Your task to perform on an android device: Add "apple airpods" to the cart on target.com Image 0: 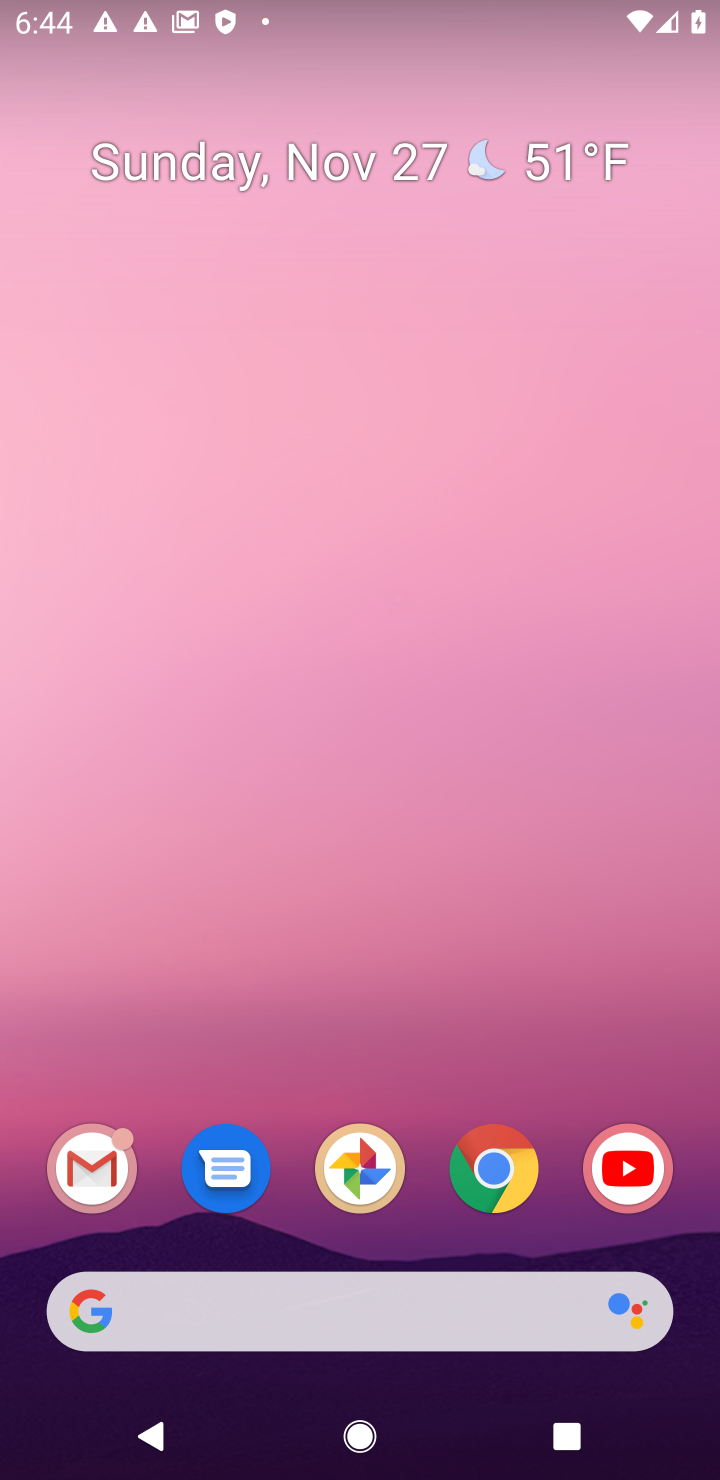
Step 0: click (493, 1166)
Your task to perform on an android device: Add "apple airpods" to the cart on target.com Image 1: 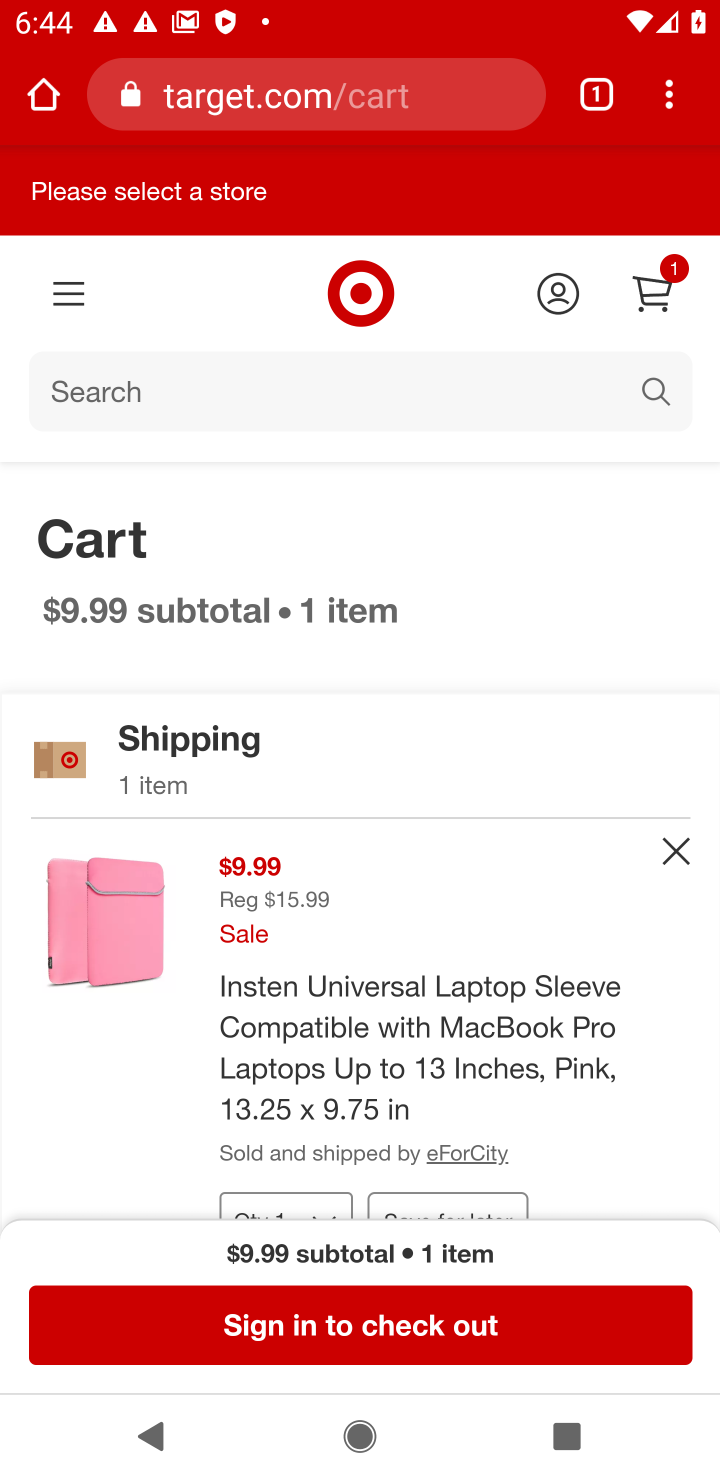
Step 1: click (425, 105)
Your task to perform on an android device: Add "apple airpods" to the cart on target.com Image 2: 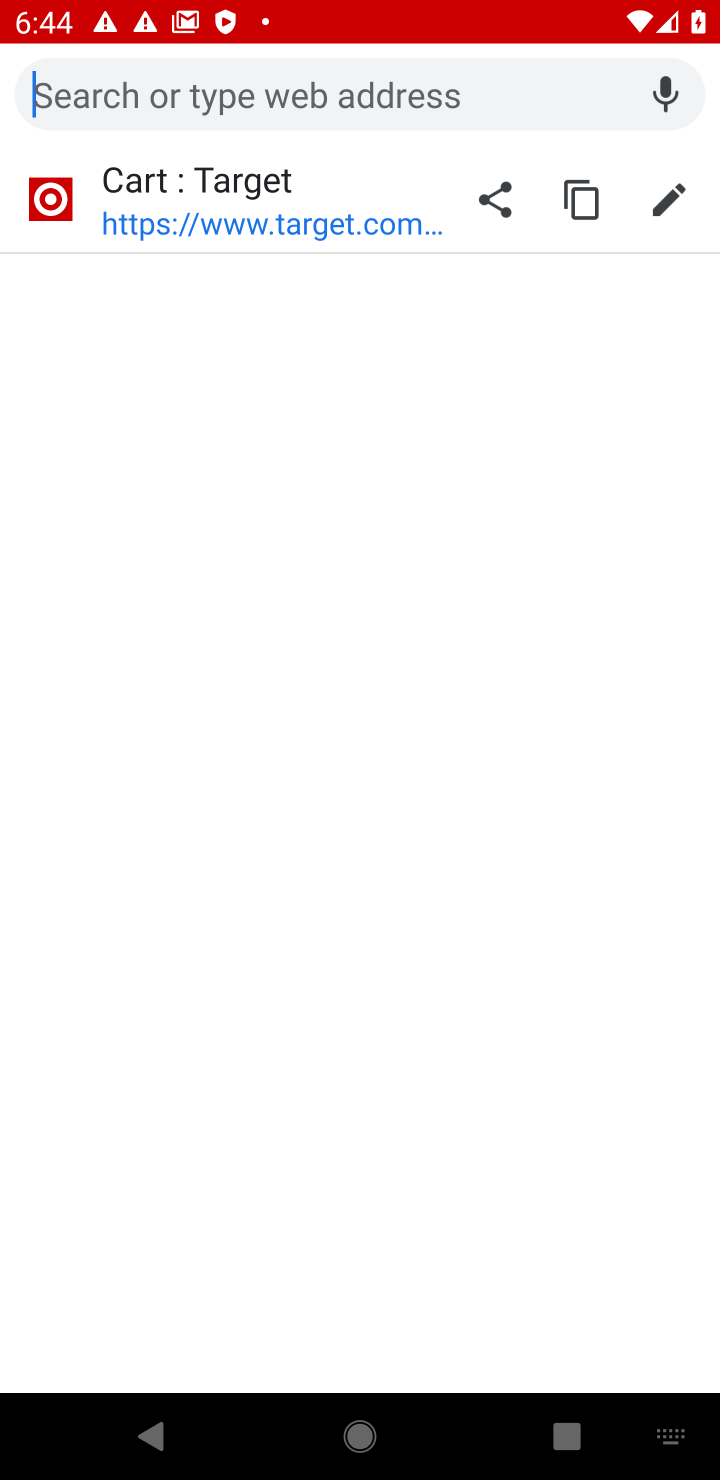
Step 2: type "target.com"
Your task to perform on an android device: Add "apple airpods" to the cart on target.com Image 3: 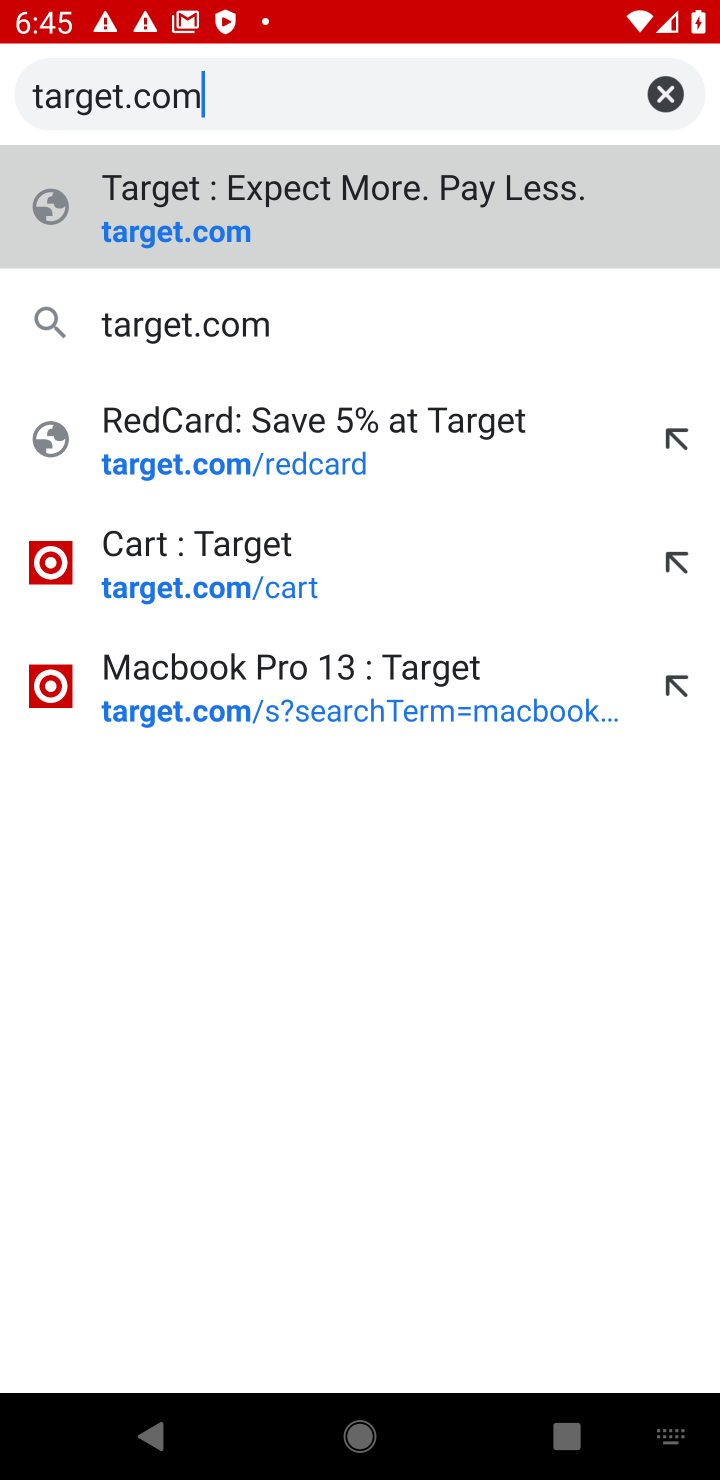
Step 3: click (148, 320)
Your task to perform on an android device: Add "apple airpods" to the cart on target.com Image 4: 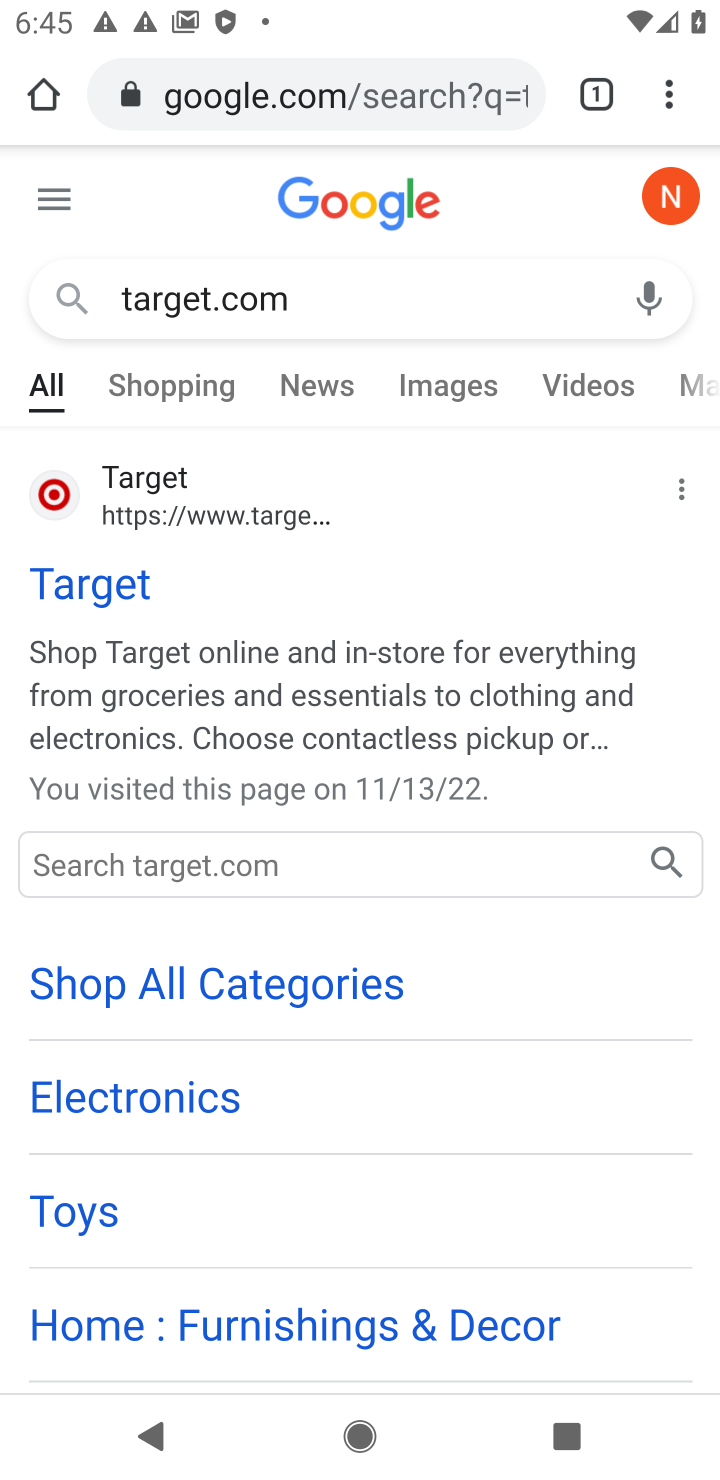
Step 4: click (210, 555)
Your task to perform on an android device: Add "apple airpods" to the cart on target.com Image 5: 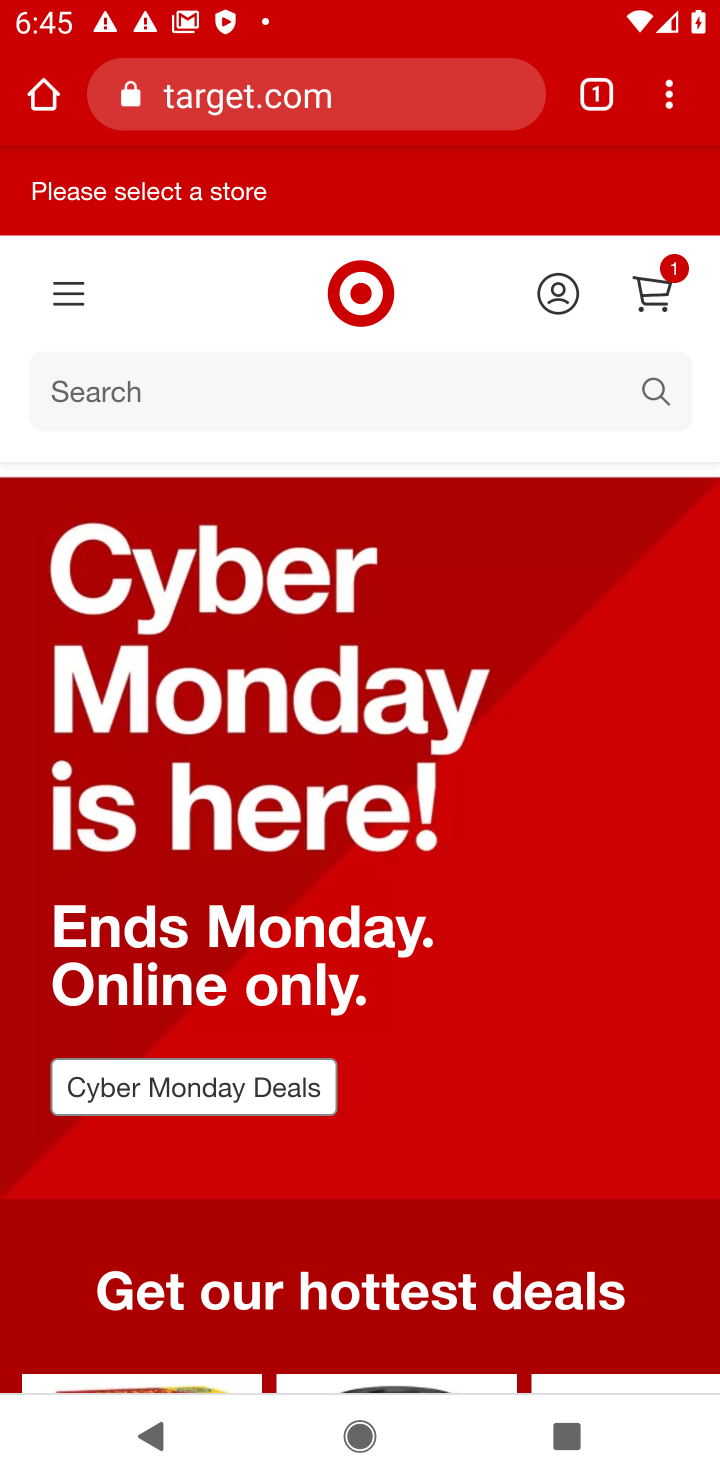
Step 5: drag from (442, 1123) to (540, 792)
Your task to perform on an android device: Add "apple airpods" to the cart on target.com Image 6: 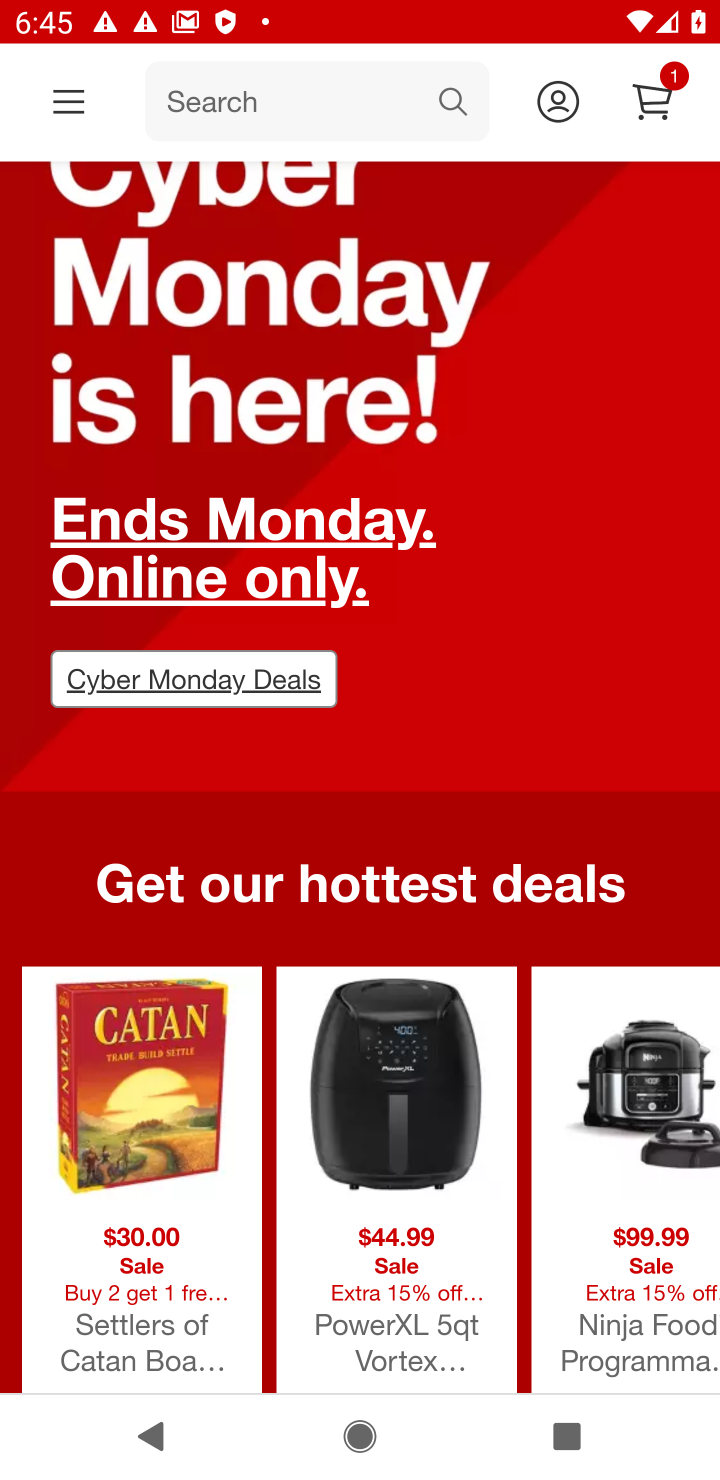
Step 6: drag from (559, 603) to (498, 934)
Your task to perform on an android device: Add "apple airpods" to the cart on target.com Image 7: 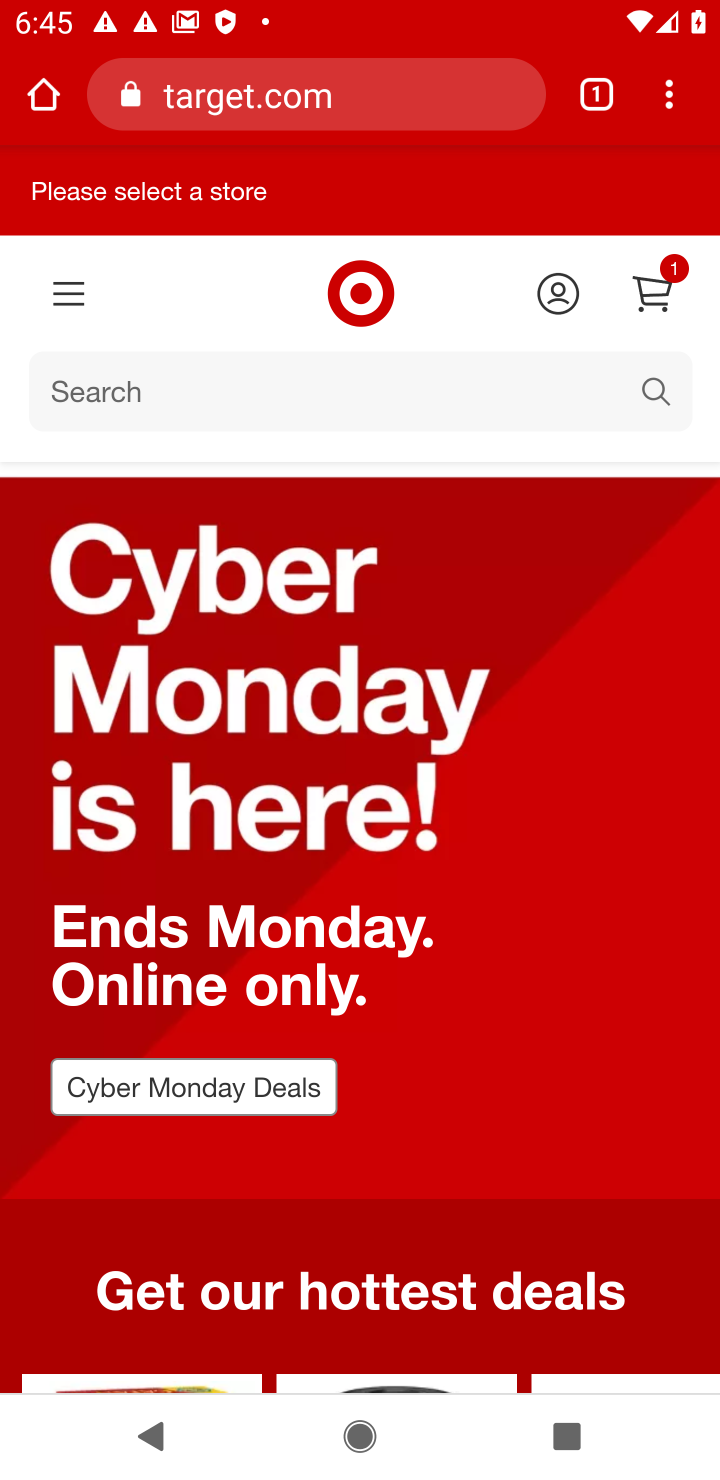
Step 7: click (457, 376)
Your task to perform on an android device: Add "apple airpods" to the cart on target.com Image 8: 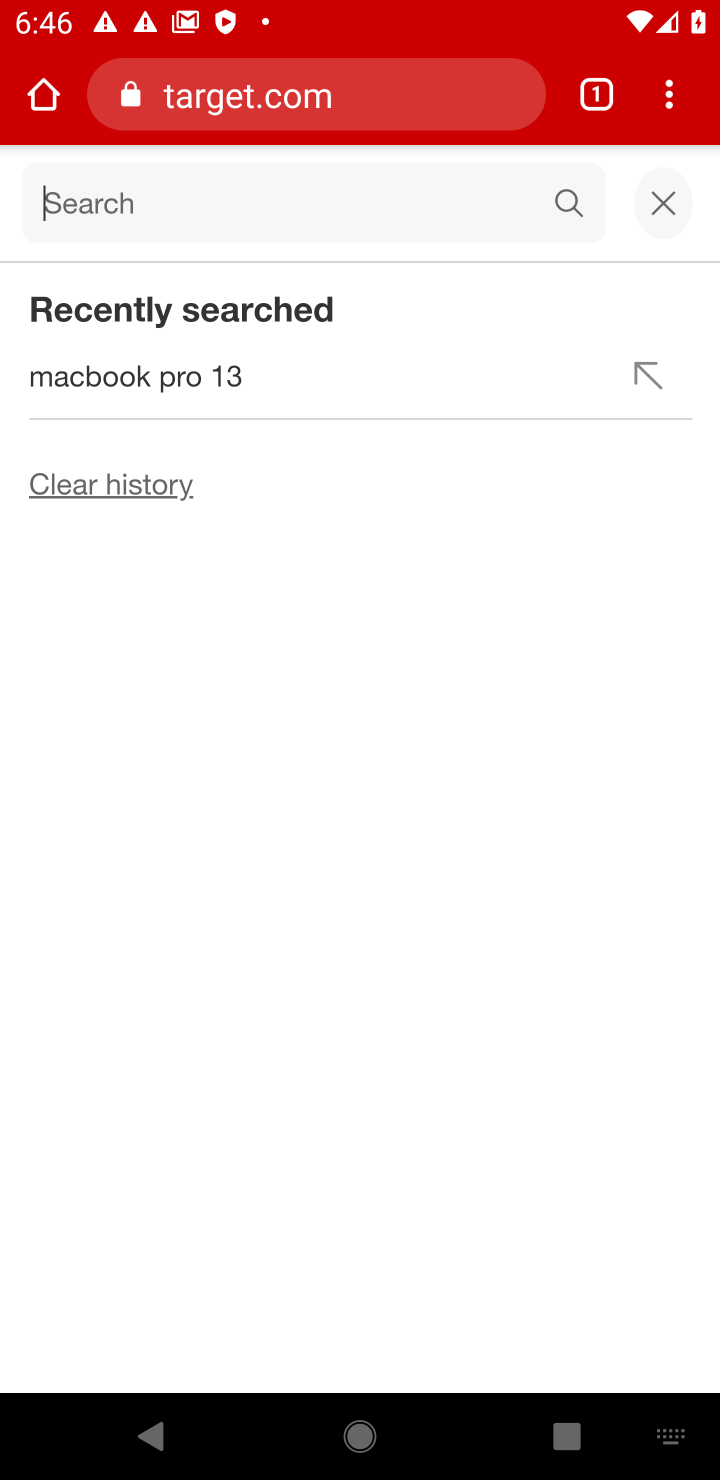
Step 8: type "apple airpods"
Your task to perform on an android device: Add "apple airpods" to the cart on target.com Image 9: 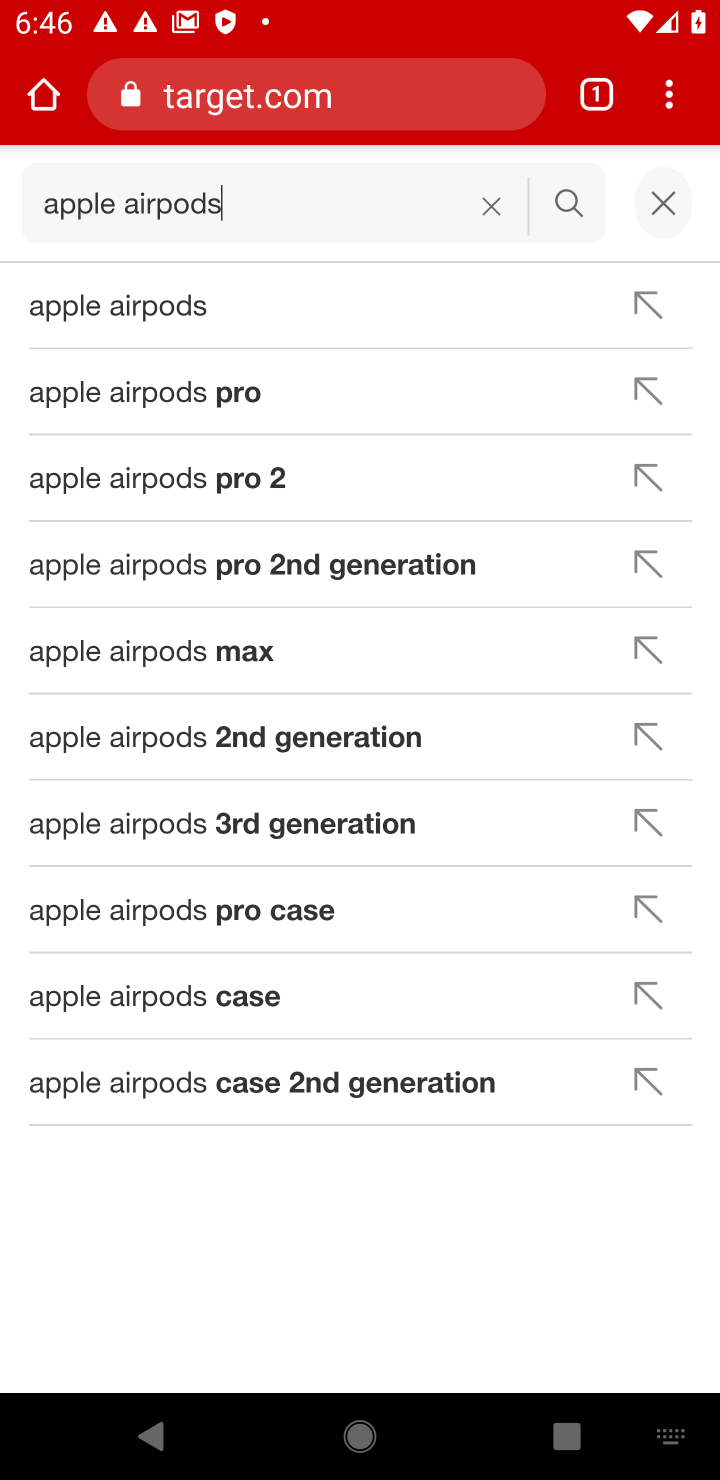
Step 9: click (188, 313)
Your task to perform on an android device: Add "apple airpods" to the cart on target.com Image 10: 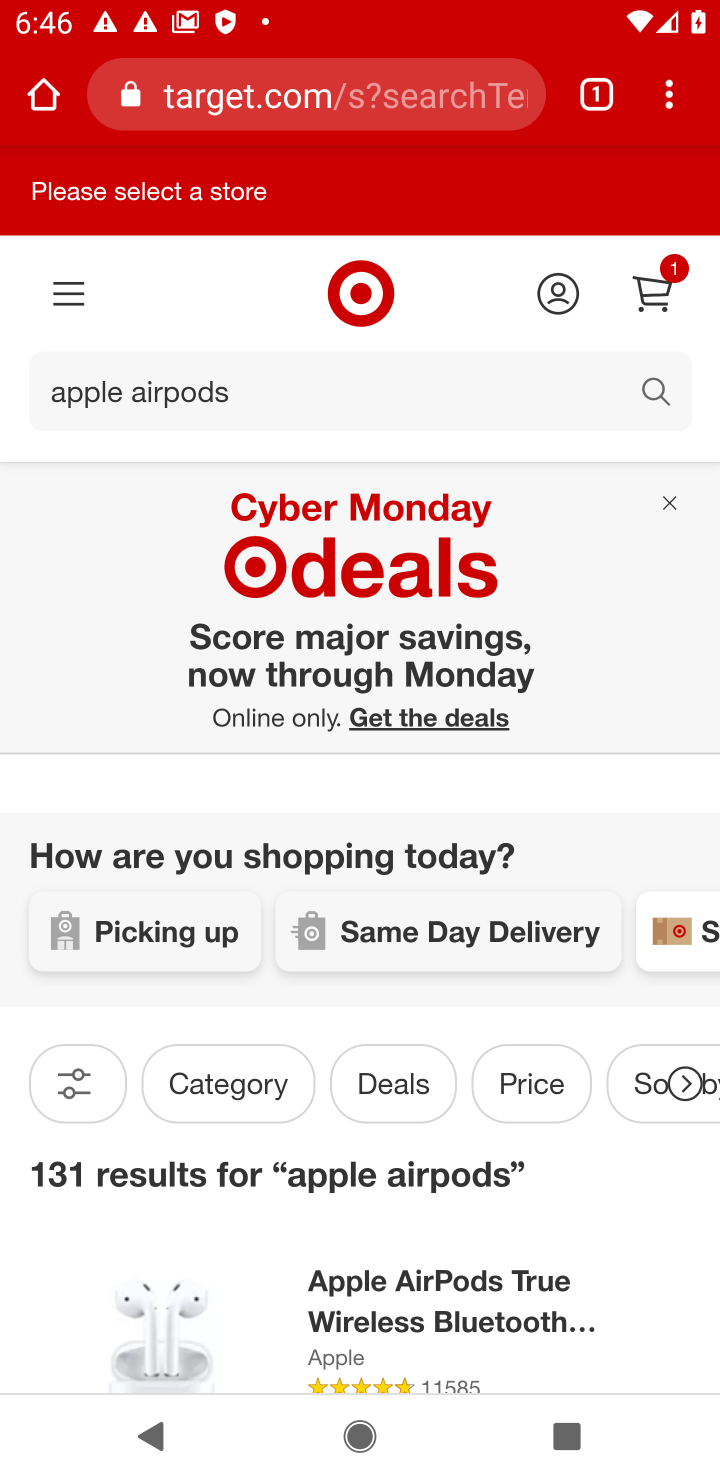
Step 10: drag from (393, 1009) to (515, 622)
Your task to perform on an android device: Add "apple airpods" to the cart on target.com Image 11: 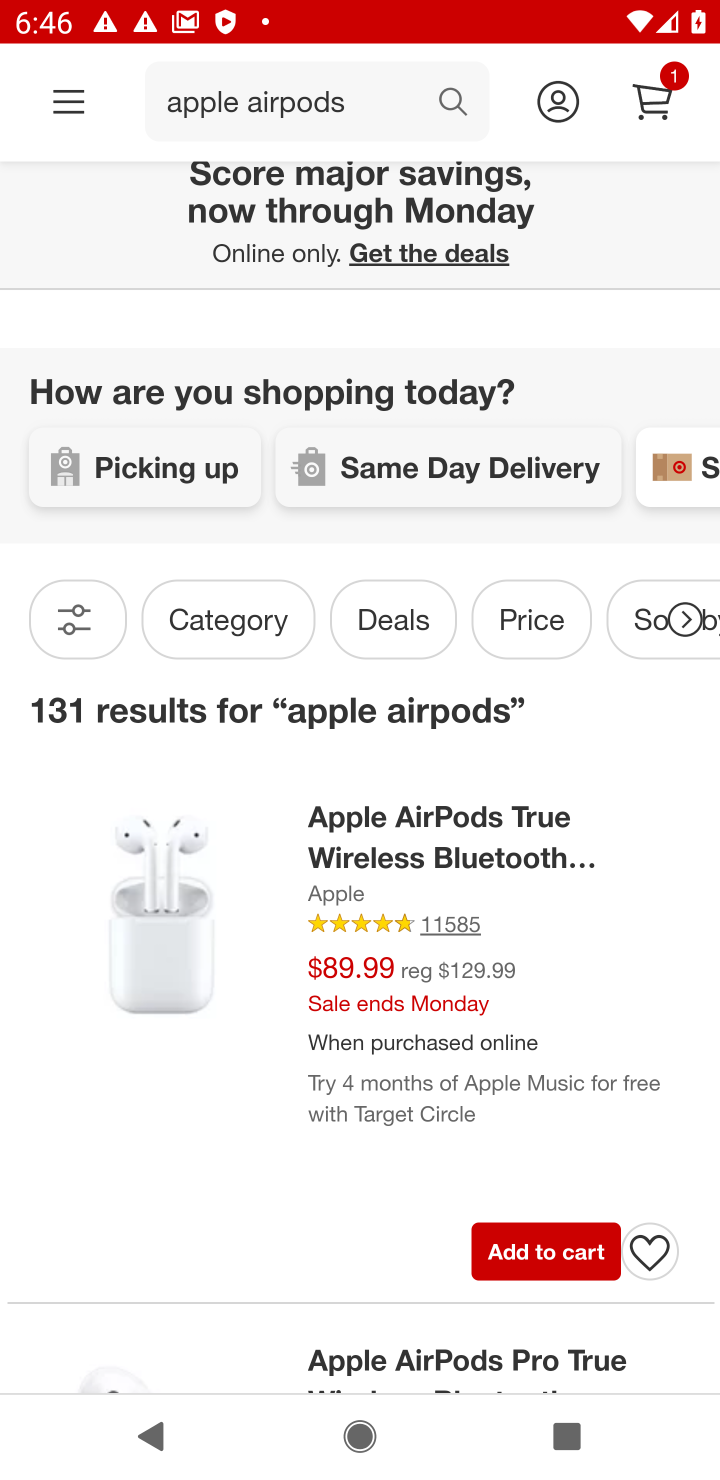
Step 11: click (548, 1252)
Your task to perform on an android device: Add "apple airpods" to the cart on target.com Image 12: 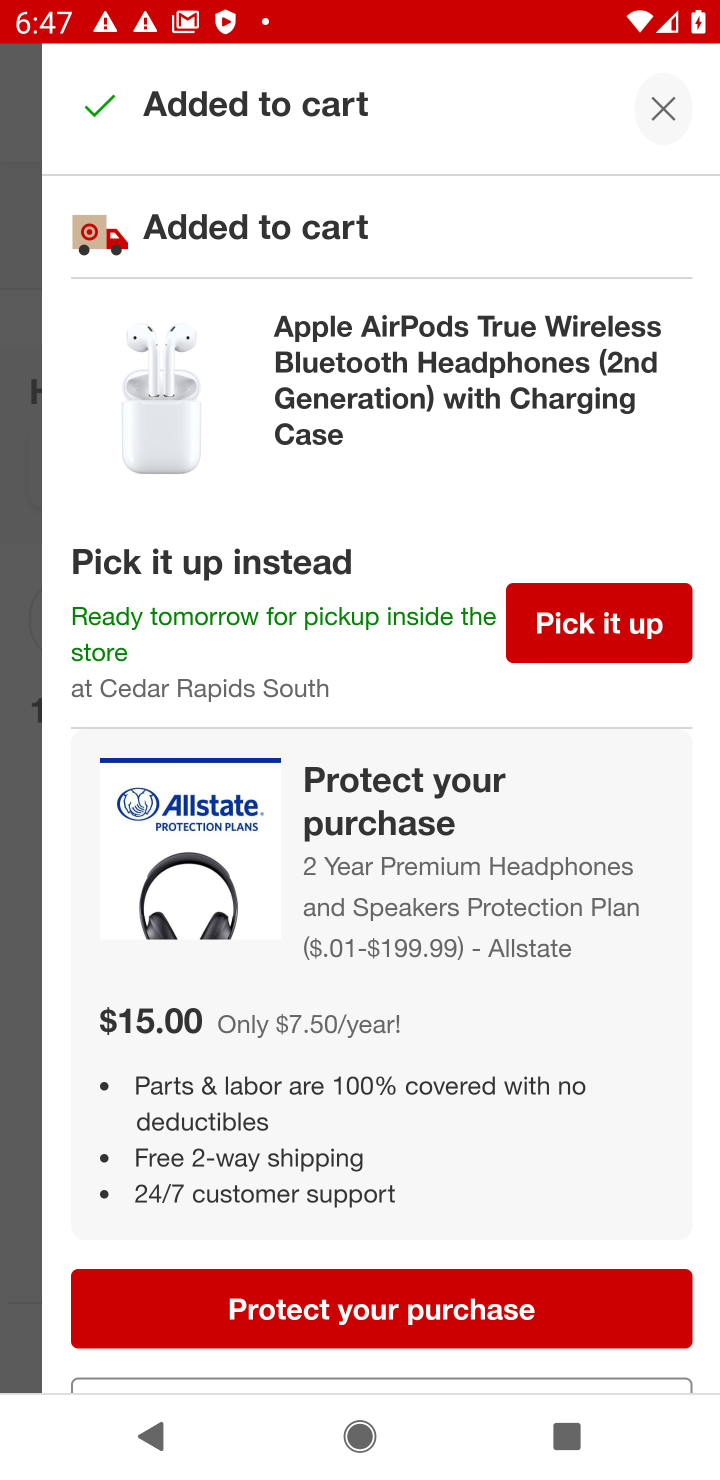
Step 12: click (666, 105)
Your task to perform on an android device: Add "apple airpods" to the cart on target.com Image 13: 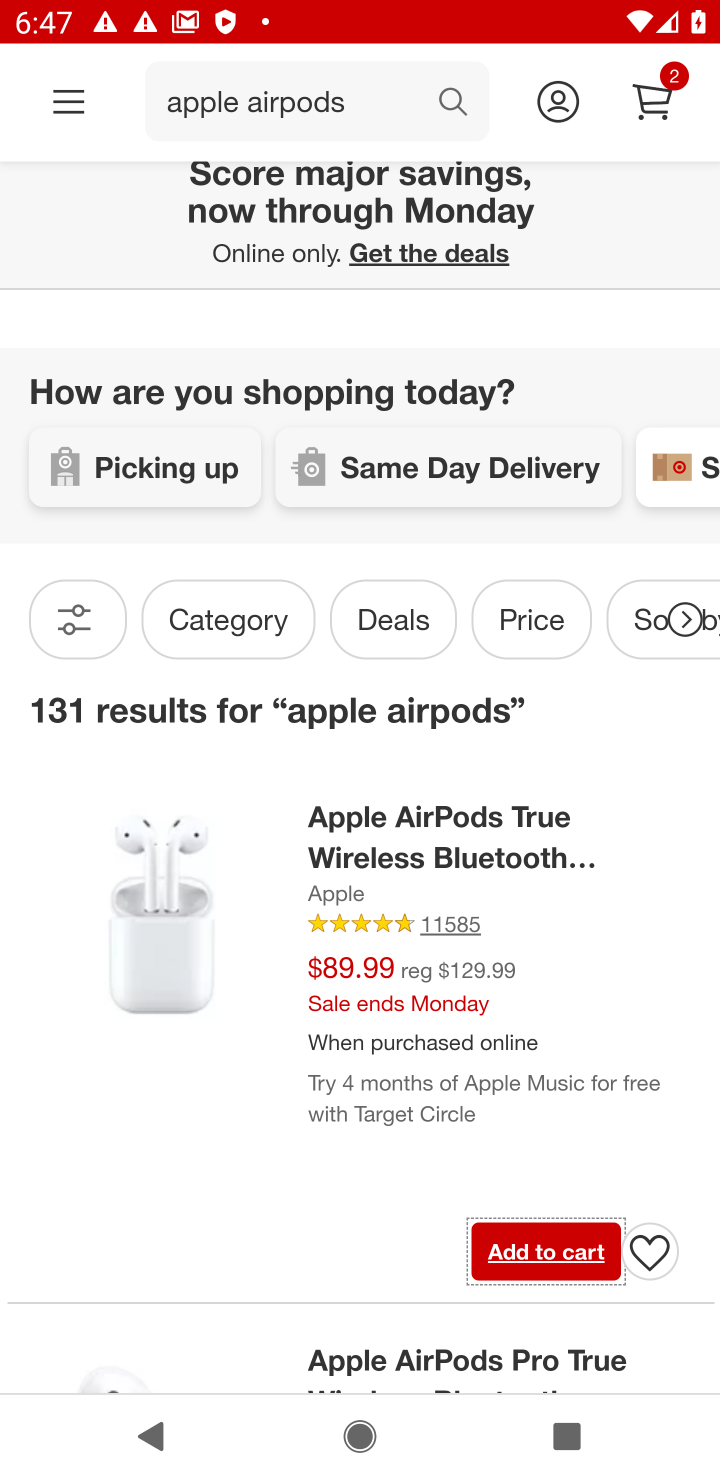
Step 13: click (664, 108)
Your task to perform on an android device: Add "apple airpods" to the cart on target.com Image 14: 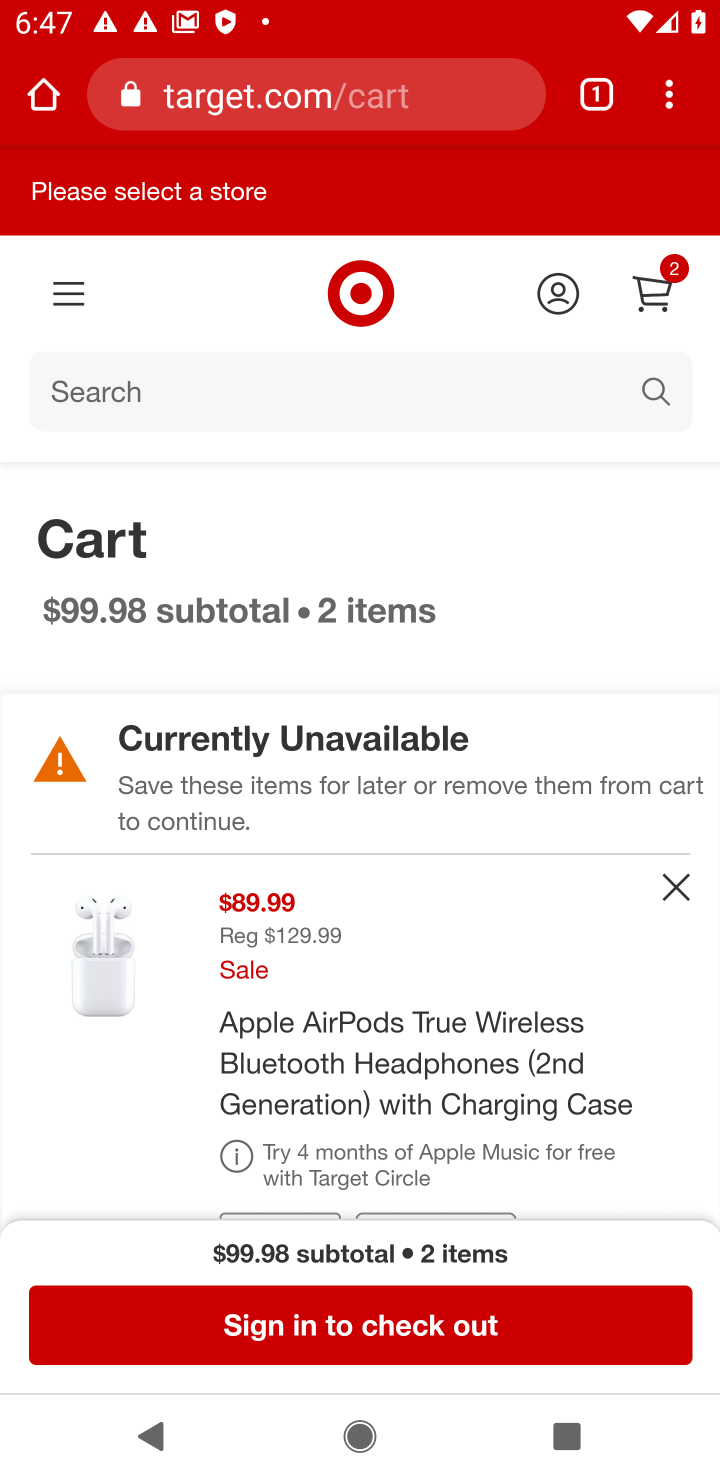
Step 14: task complete